Your task to perform on an android device: Turn on the flashlight Image 0: 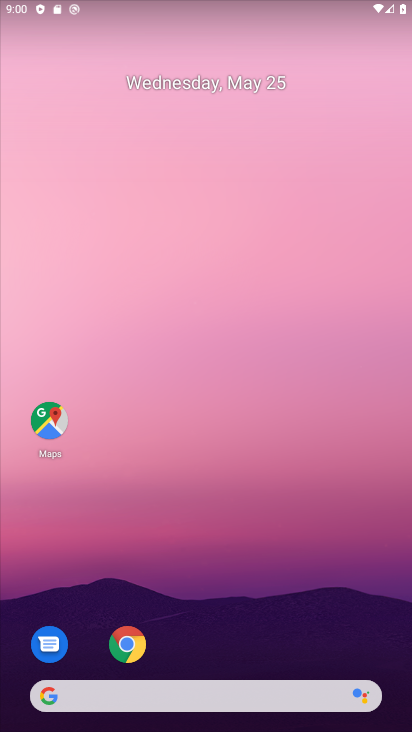
Step 0: drag from (205, 67) to (224, 726)
Your task to perform on an android device: Turn on the flashlight Image 1: 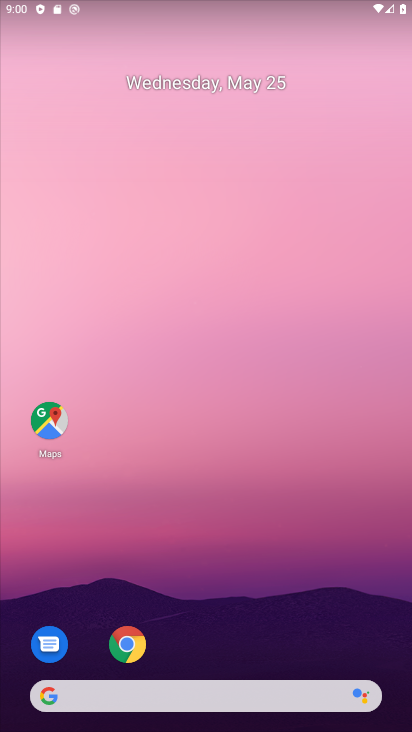
Step 1: task complete